Your task to perform on an android device: change the clock display to show seconds Image 0: 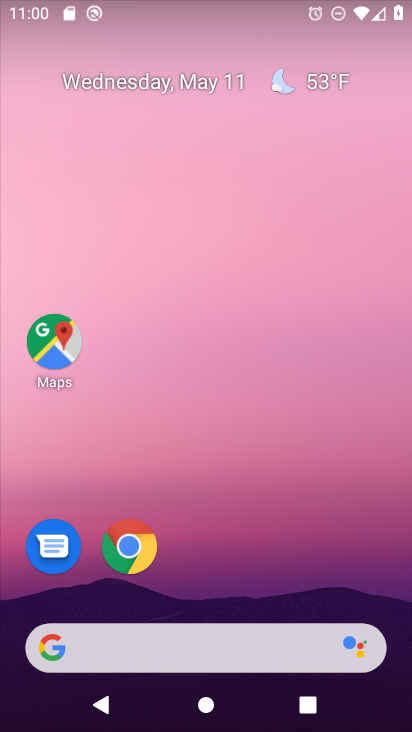
Step 0: drag from (382, 613) to (240, 19)
Your task to perform on an android device: change the clock display to show seconds Image 1: 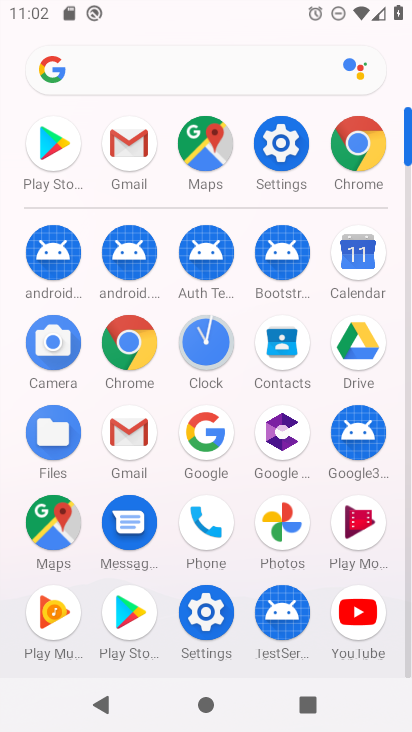
Step 1: click (211, 354)
Your task to perform on an android device: change the clock display to show seconds Image 2: 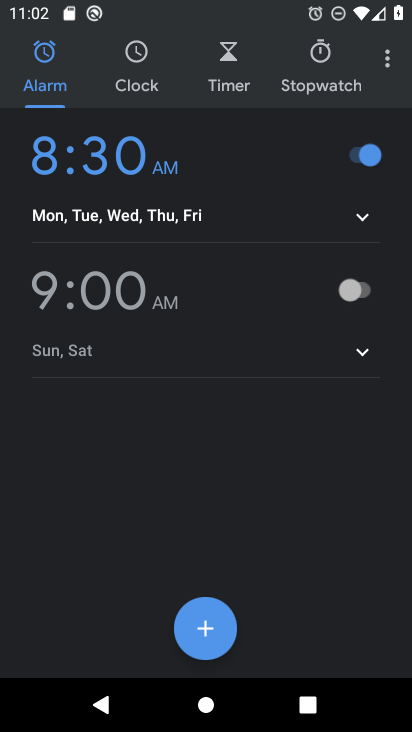
Step 2: click (391, 59)
Your task to perform on an android device: change the clock display to show seconds Image 3: 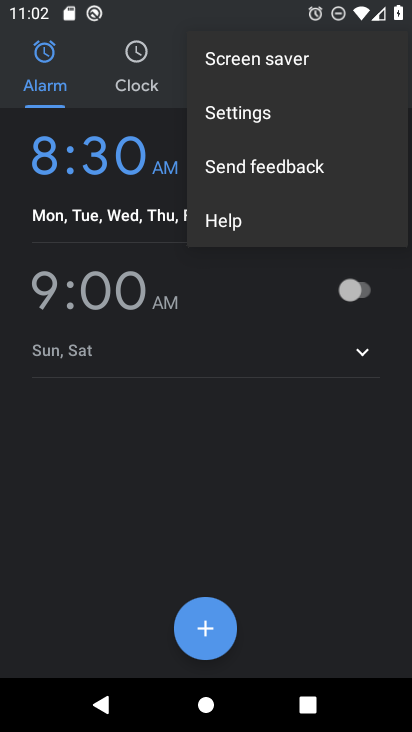
Step 3: click (235, 123)
Your task to perform on an android device: change the clock display to show seconds Image 4: 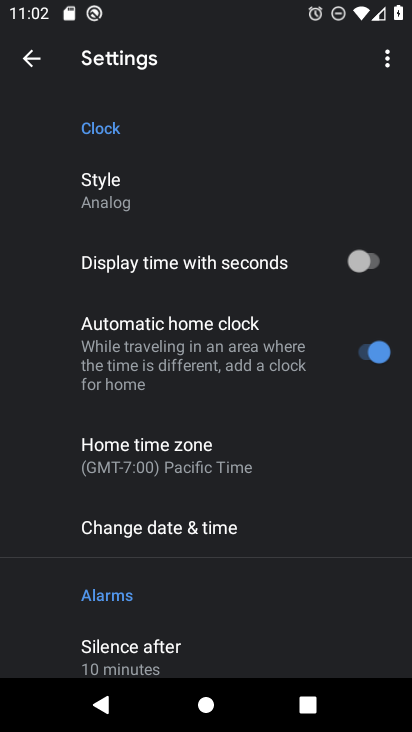
Step 4: click (328, 272)
Your task to perform on an android device: change the clock display to show seconds Image 5: 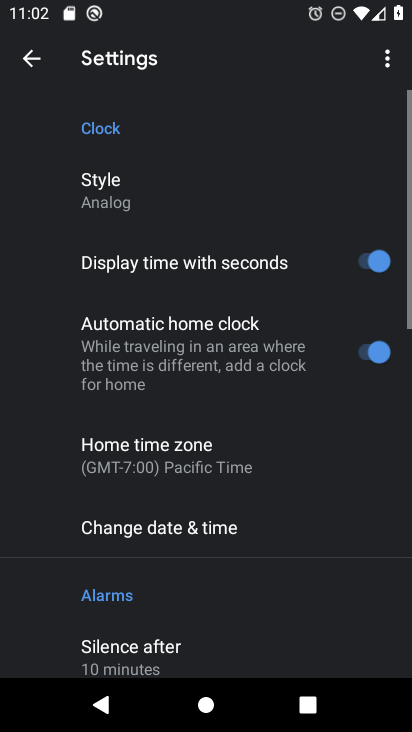
Step 5: task complete